Your task to perform on an android device: toggle show notifications on the lock screen Image 0: 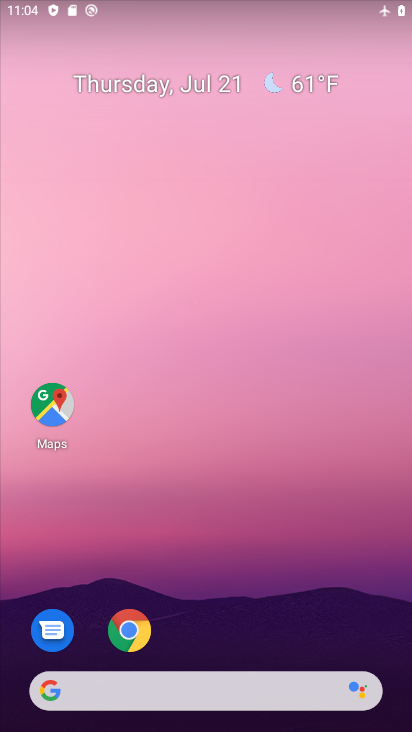
Step 0: drag from (223, 669) to (247, 253)
Your task to perform on an android device: toggle show notifications on the lock screen Image 1: 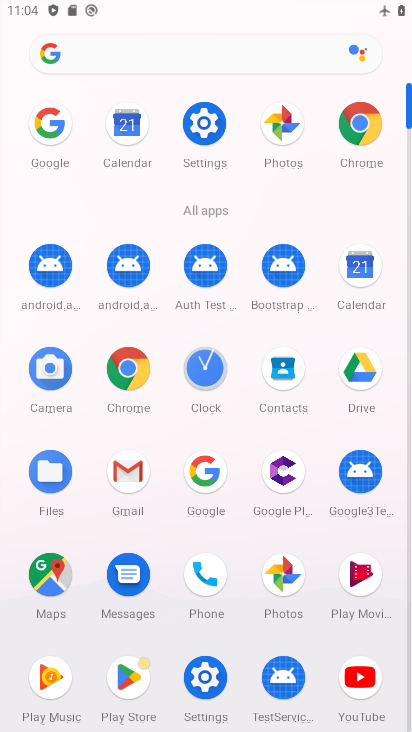
Step 1: click (210, 115)
Your task to perform on an android device: toggle show notifications on the lock screen Image 2: 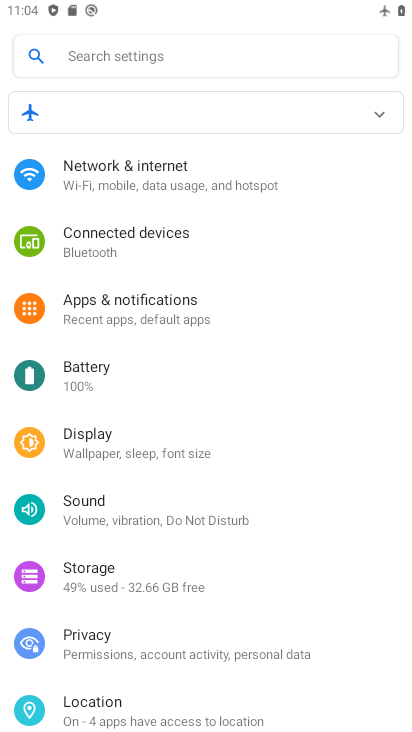
Step 2: click (100, 645)
Your task to perform on an android device: toggle show notifications on the lock screen Image 3: 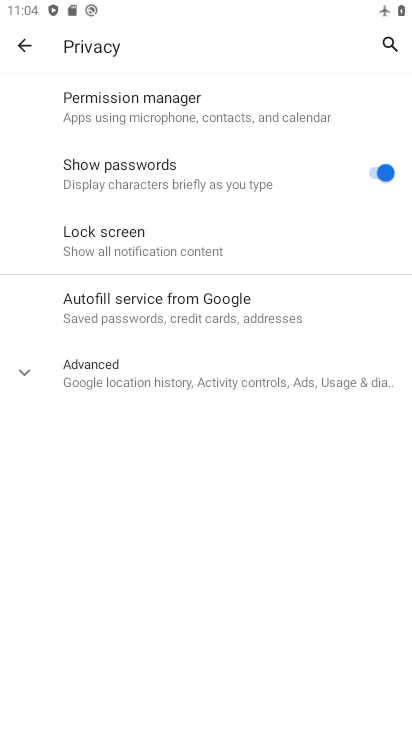
Step 3: click (129, 223)
Your task to perform on an android device: toggle show notifications on the lock screen Image 4: 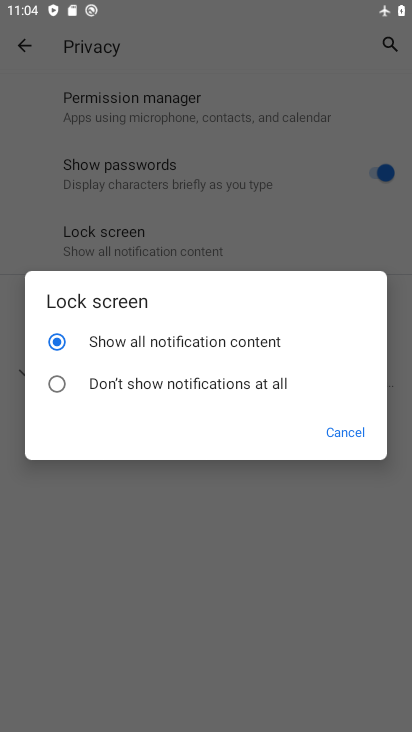
Step 4: click (166, 390)
Your task to perform on an android device: toggle show notifications on the lock screen Image 5: 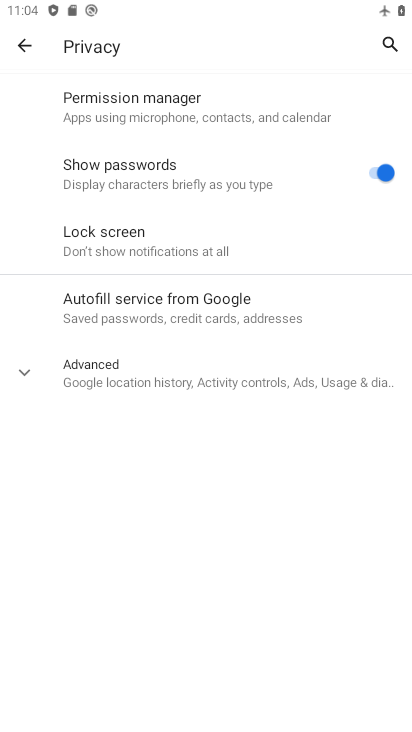
Step 5: task complete